Your task to perform on an android device: toggle notification dots Image 0: 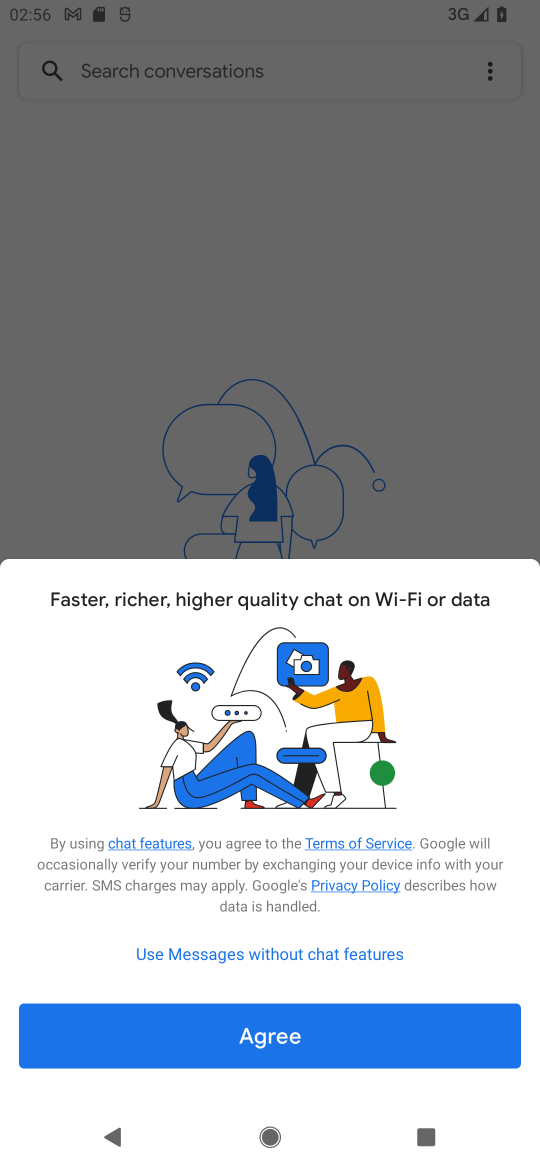
Step 0: press home button
Your task to perform on an android device: toggle notification dots Image 1: 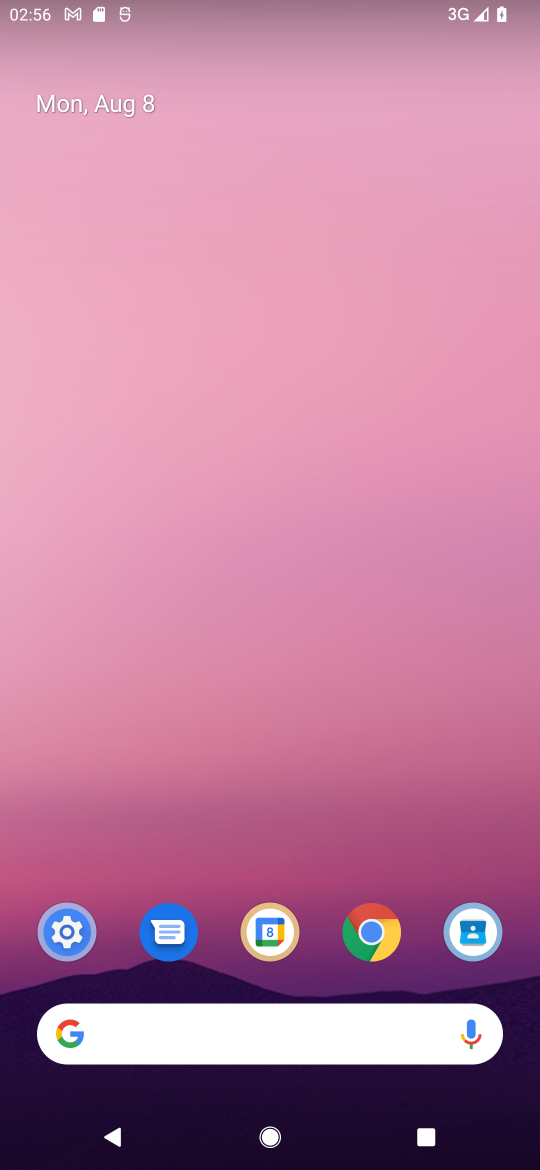
Step 1: drag from (229, 812) to (73, 23)
Your task to perform on an android device: toggle notification dots Image 2: 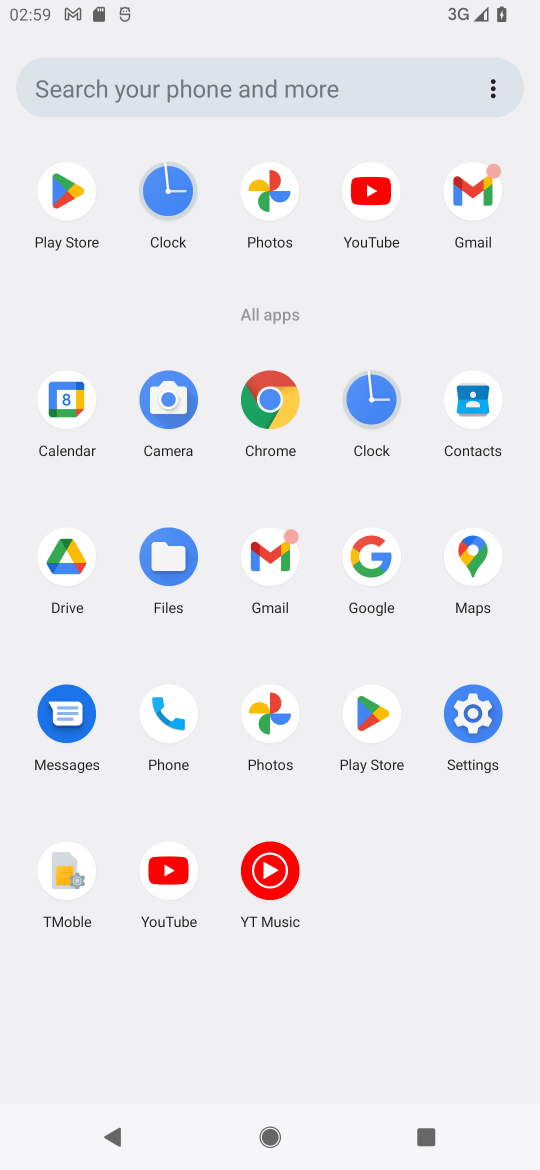
Step 2: click (485, 717)
Your task to perform on an android device: toggle notification dots Image 3: 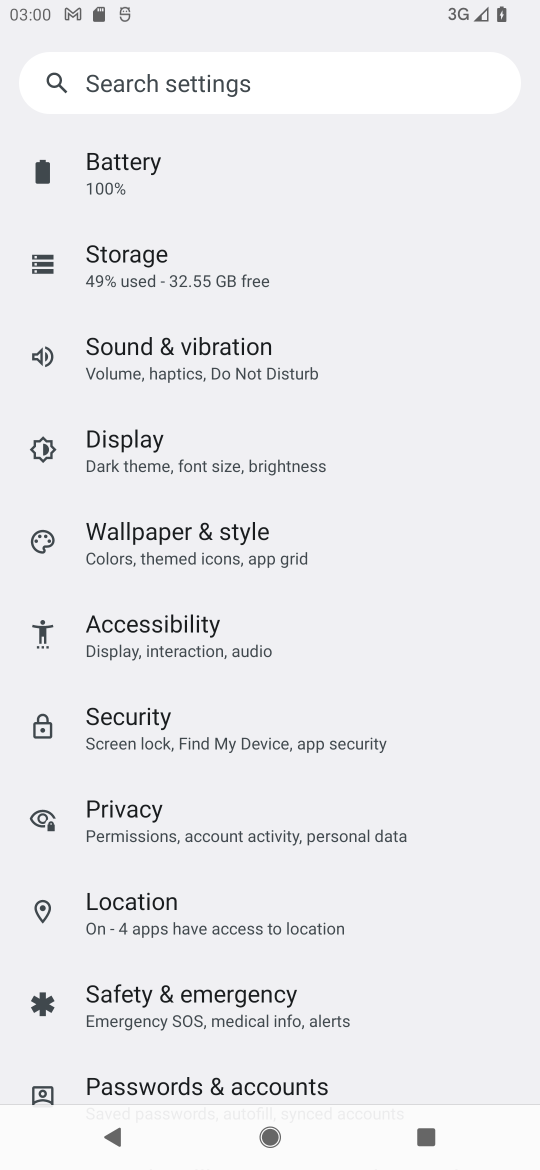
Step 3: drag from (180, 411) to (185, 1012)
Your task to perform on an android device: toggle notification dots Image 4: 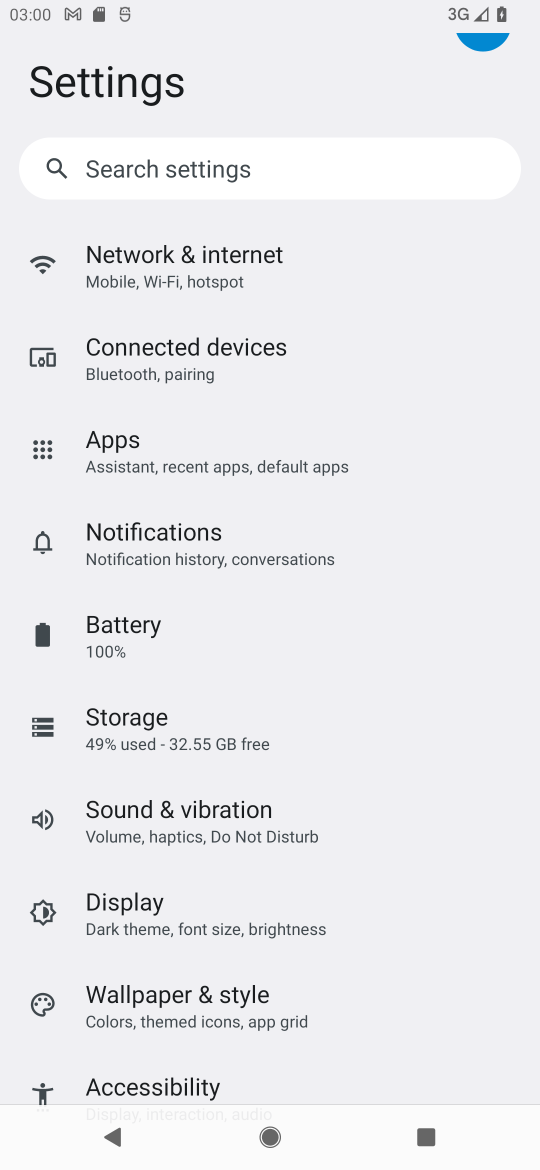
Step 4: click (137, 577)
Your task to perform on an android device: toggle notification dots Image 5: 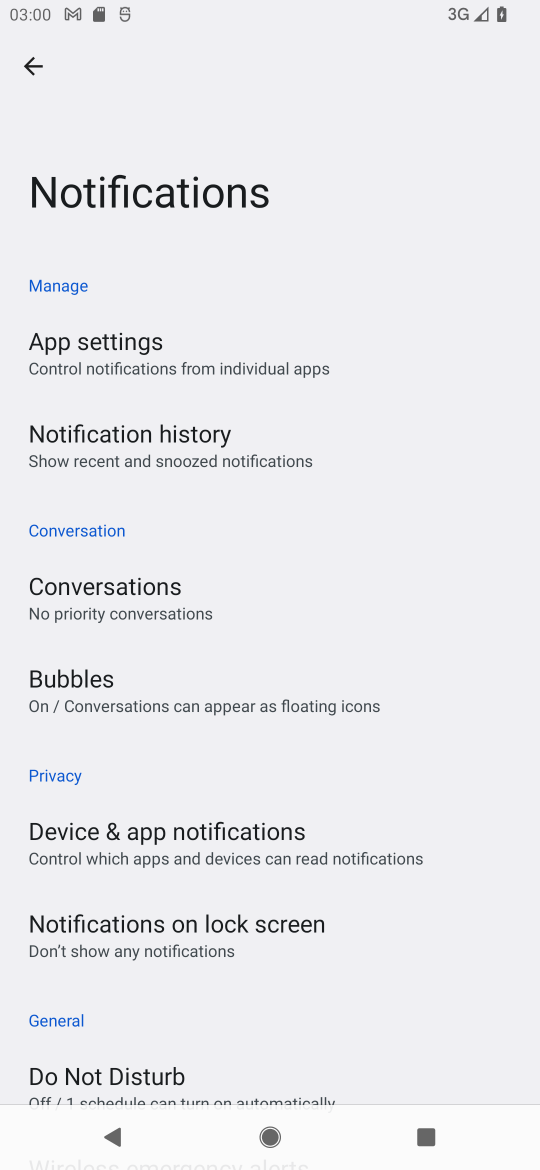
Step 5: task complete